Your task to perform on an android device: turn notification dots on Image 0: 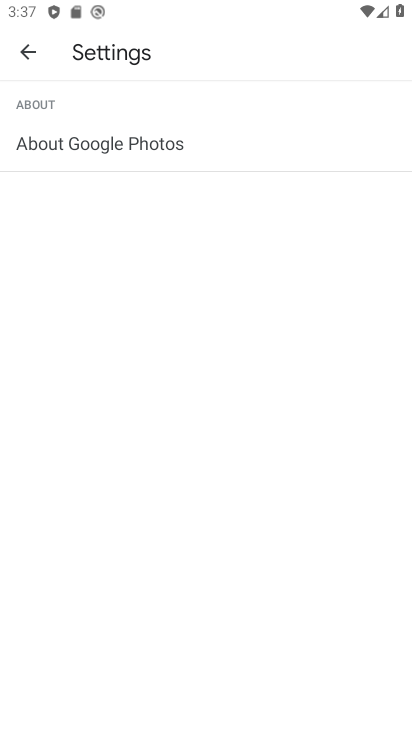
Step 0: press home button
Your task to perform on an android device: turn notification dots on Image 1: 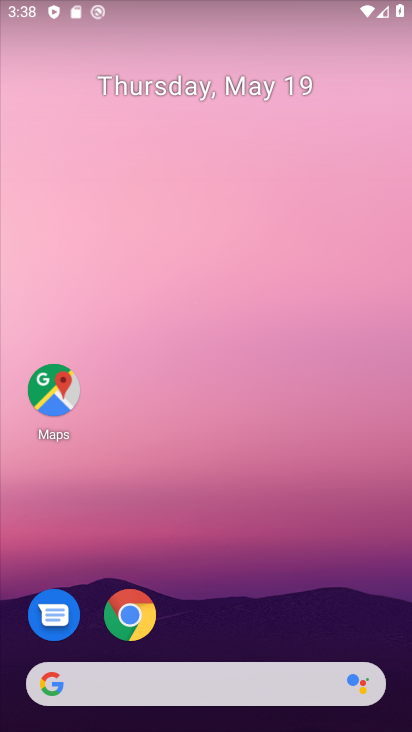
Step 1: drag from (255, 646) to (273, 0)
Your task to perform on an android device: turn notification dots on Image 2: 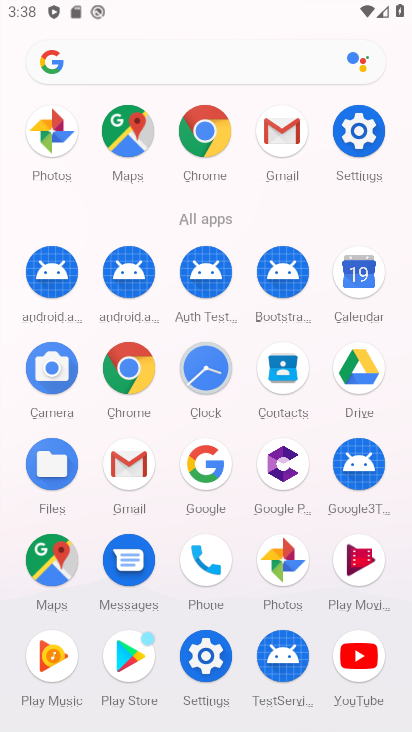
Step 2: click (359, 131)
Your task to perform on an android device: turn notification dots on Image 3: 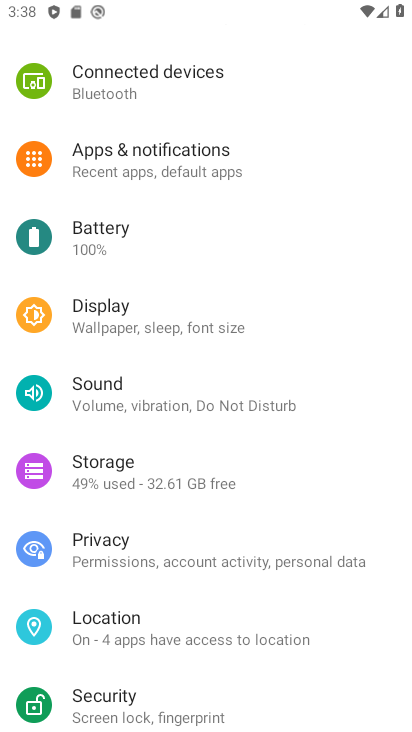
Step 3: click (145, 167)
Your task to perform on an android device: turn notification dots on Image 4: 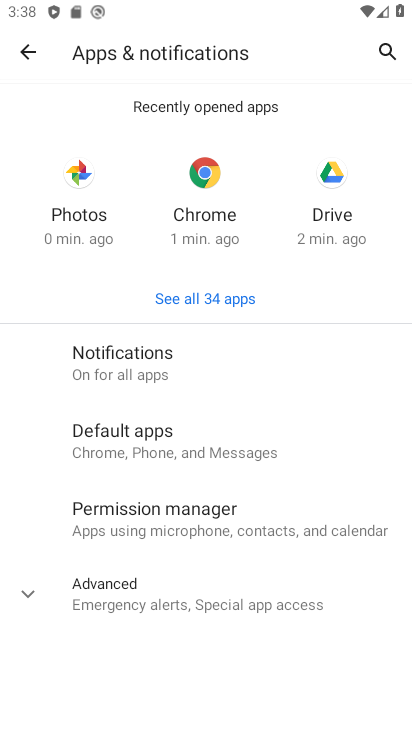
Step 4: click (85, 371)
Your task to perform on an android device: turn notification dots on Image 5: 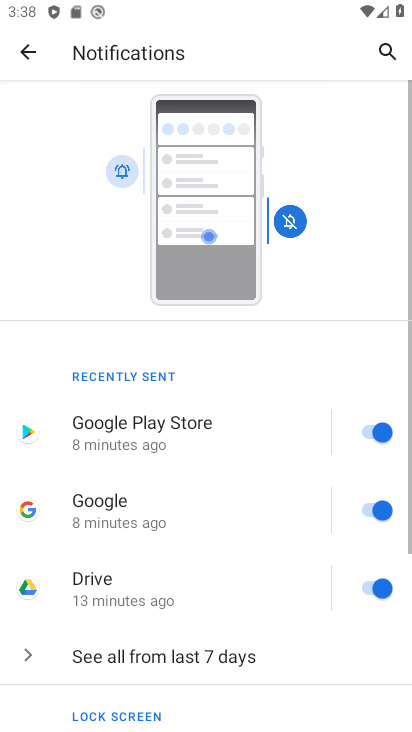
Step 5: drag from (205, 630) to (173, 137)
Your task to perform on an android device: turn notification dots on Image 6: 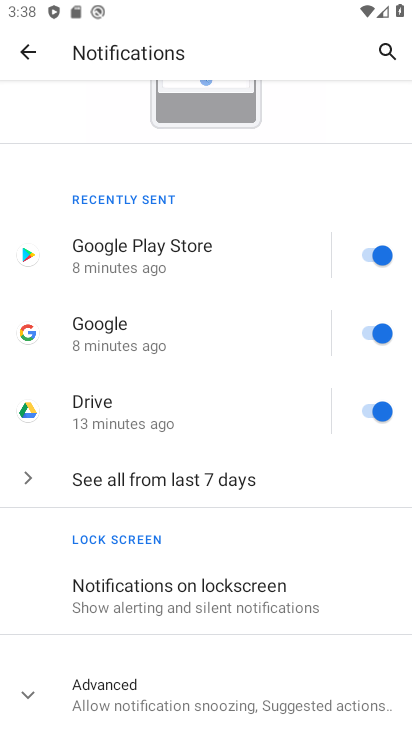
Step 6: click (24, 702)
Your task to perform on an android device: turn notification dots on Image 7: 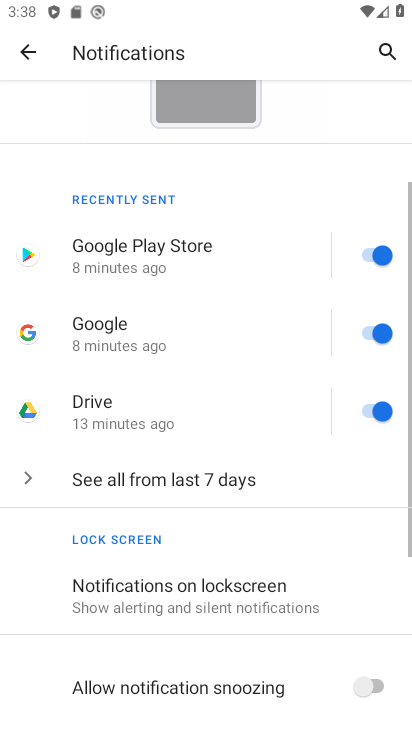
Step 7: task complete